Your task to perform on an android device: turn off priority inbox in the gmail app Image 0: 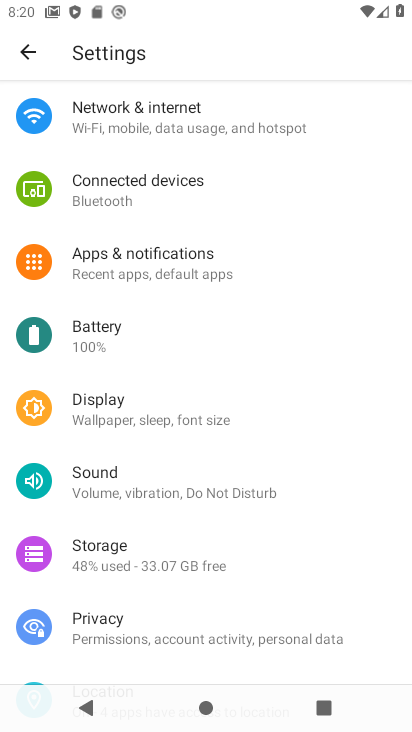
Step 0: press home button
Your task to perform on an android device: turn off priority inbox in the gmail app Image 1: 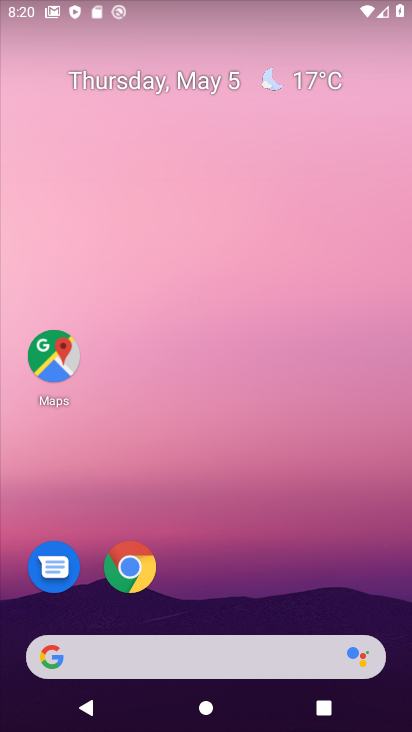
Step 1: drag from (225, 725) to (227, 172)
Your task to perform on an android device: turn off priority inbox in the gmail app Image 2: 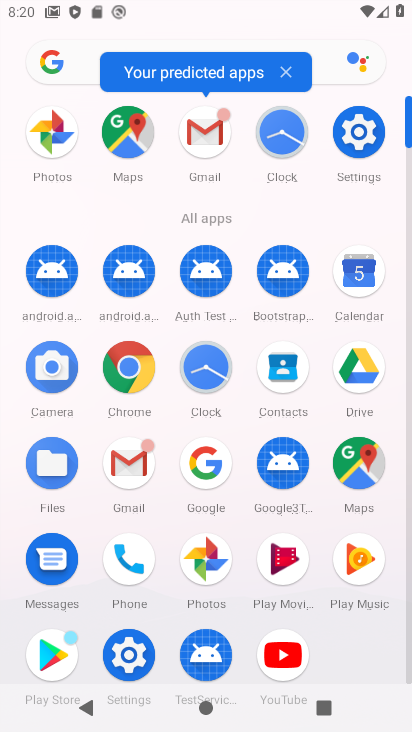
Step 2: click (210, 129)
Your task to perform on an android device: turn off priority inbox in the gmail app Image 3: 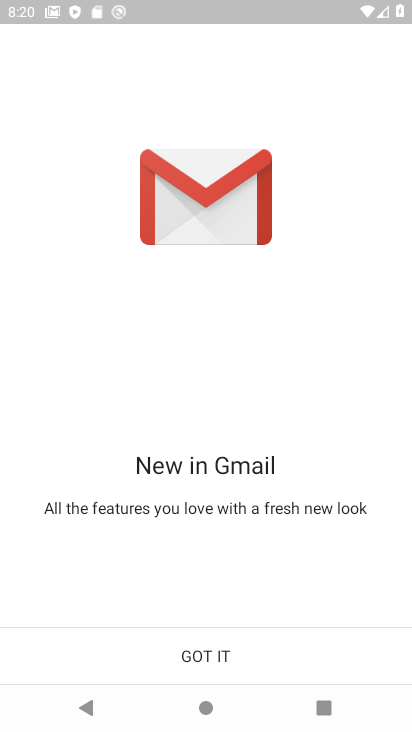
Step 3: click (216, 651)
Your task to perform on an android device: turn off priority inbox in the gmail app Image 4: 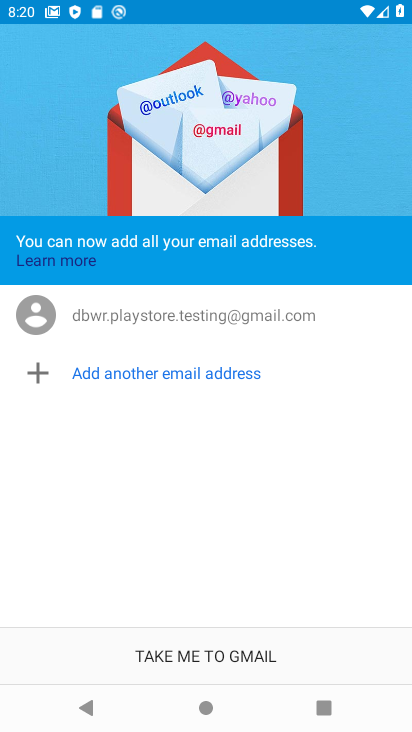
Step 4: click (210, 649)
Your task to perform on an android device: turn off priority inbox in the gmail app Image 5: 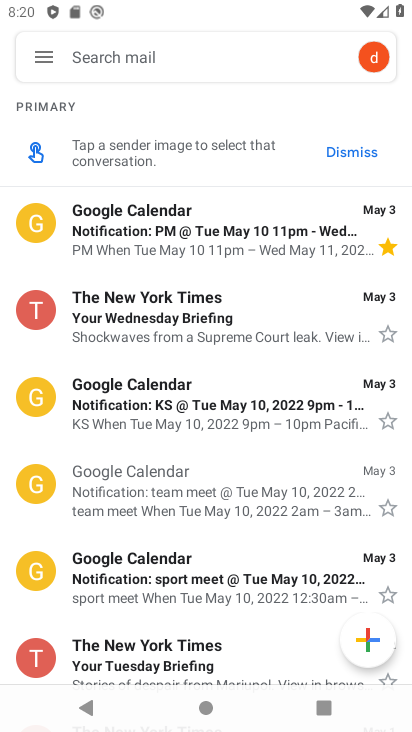
Step 5: click (42, 53)
Your task to perform on an android device: turn off priority inbox in the gmail app Image 6: 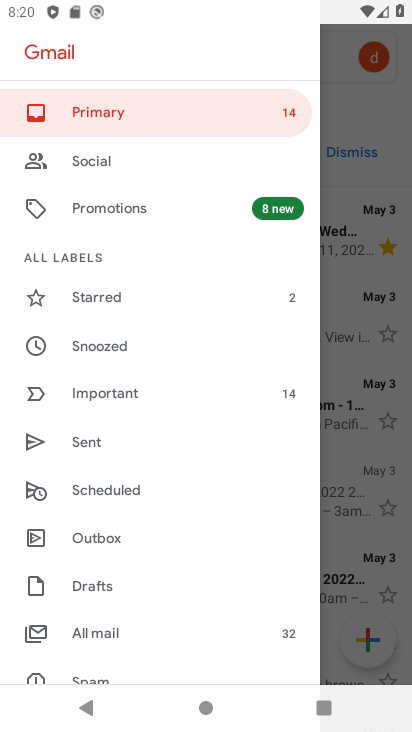
Step 6: drag from (150, 655) to (174, 205)
Your task to perform on an android device: turn off priority inbox in the gmail app Image 7: 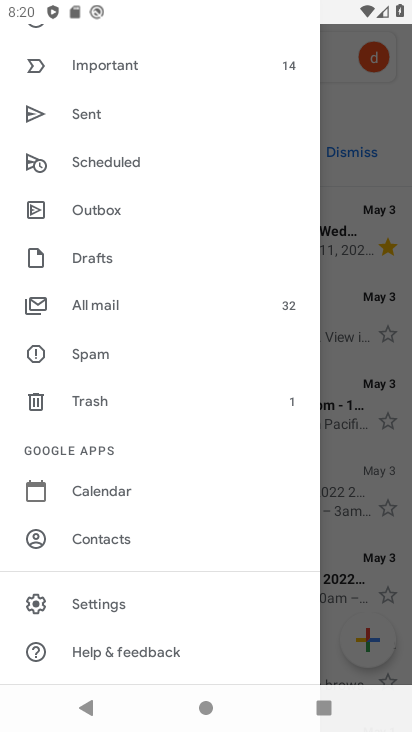
Step 7: click (100, 603)
Your task to perform on an android device: turn off priority inbox in the gmail app Image 8: 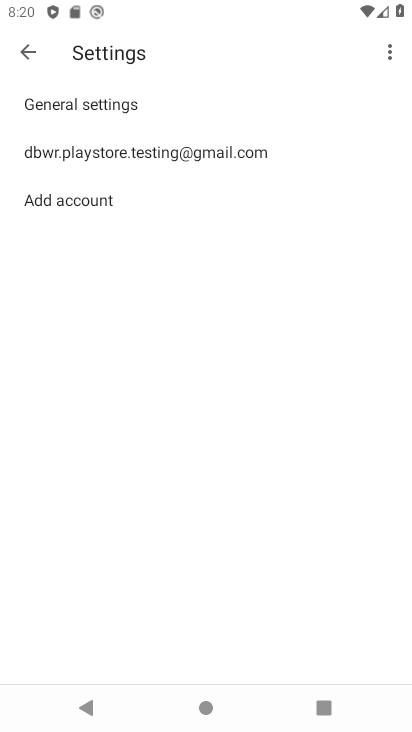
Step 8: click (157, 150)
Your task to perform on an android device: turn off priority inbox in the gmail app Image 9: 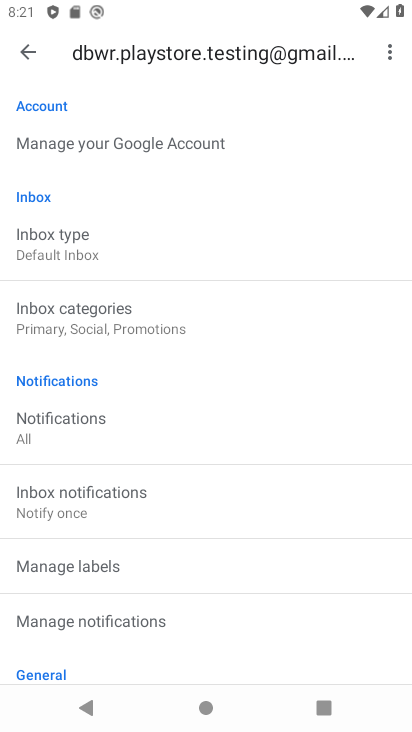
Step 9: task complete